Your task to perform on an android device: open a new tab in the chrome app Image 0: 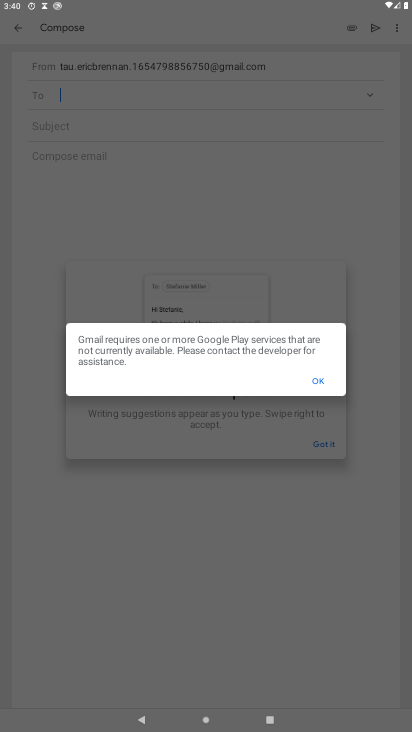
Step 0: press home button
Your task to perform on an android device: open a new tab in the chrome app Image 1: 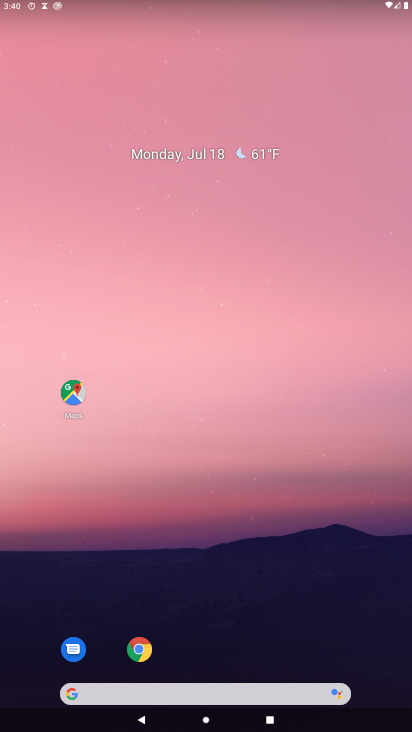
Step 1: click (135, 657)
Your task to perform on an android device: open a new tab in the chrome app Image 2: 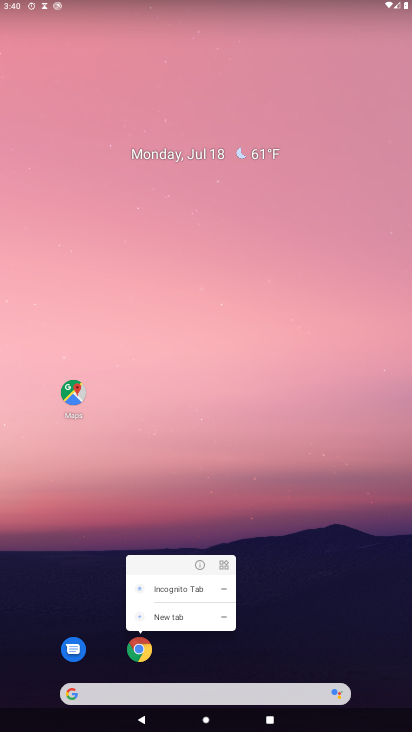
Step 2: click (150, 650)
Your task to perform on an android device: open a new tab in the chrome app Image 3: 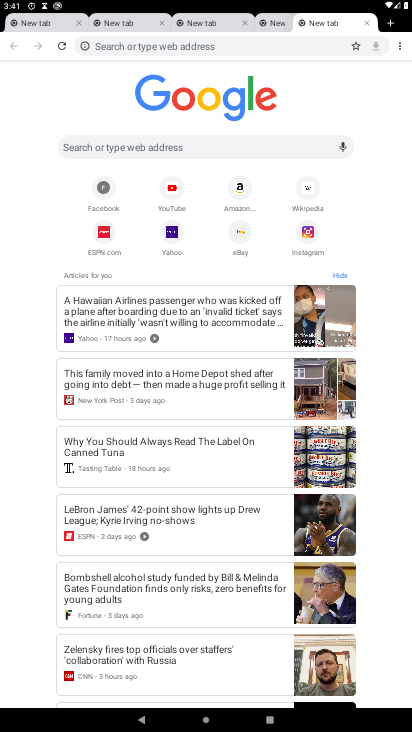
Step 3: click (397, 45)
Your task to perform on an android device: open a new tab in the chrome app Image 4: 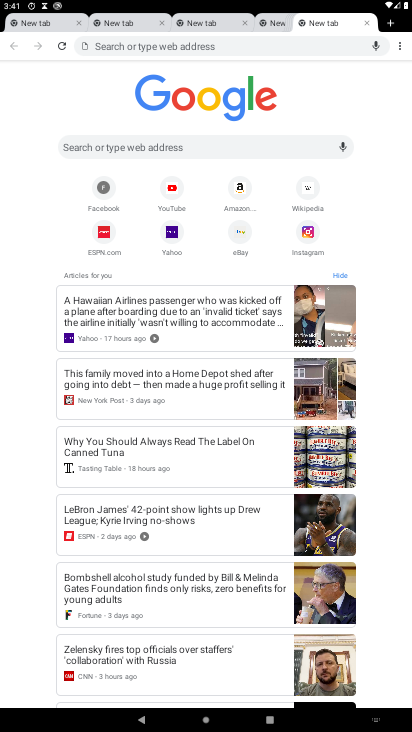
Step 4: task complete